Your task to perform on an android device: Show me popular videos on Youtube Image 0: 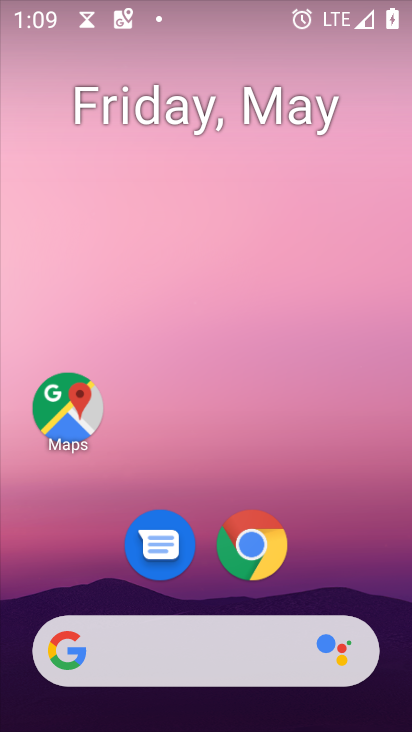
Step 0: drag from (341, 568) to (327, 90)
Your task to perform on an android device: Show me popular videos on Youtube Image 1: 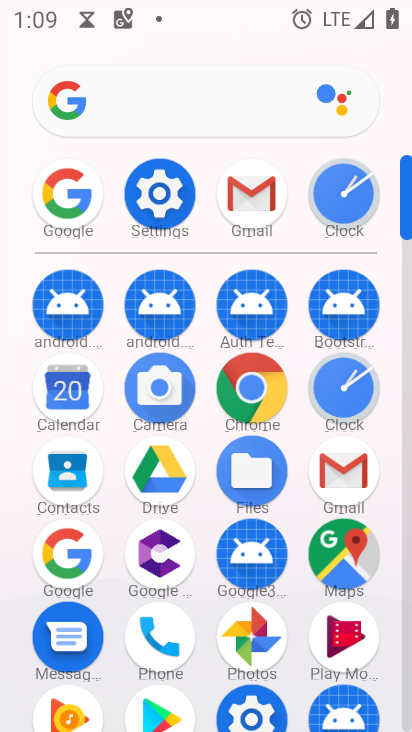
Step 1: drag from (302, 571) to (308, 180)
Your task to perform on an android device: Show me popular videos on Youtube Image 2: 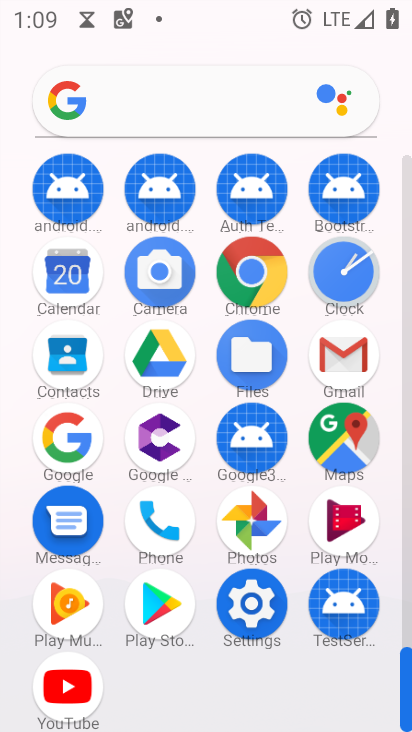
Step 2: click (59, 681)
Your task to perform on an android device: Show me popular videos on Youtube Image 3: 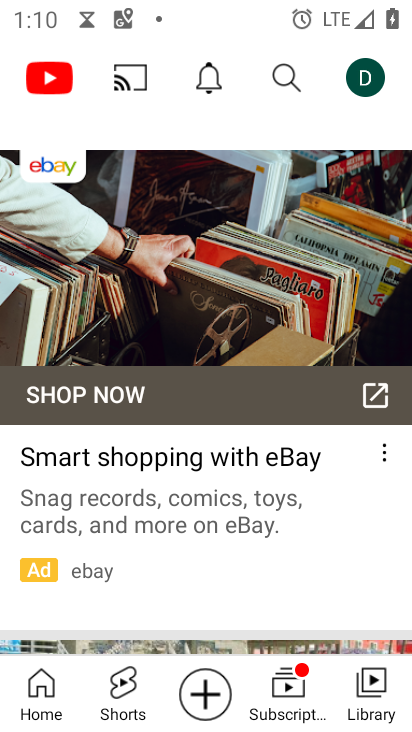
Step 3: click (280, 71)
Your task to perform on an android device: Show me popular videos on Youtube Image 4: 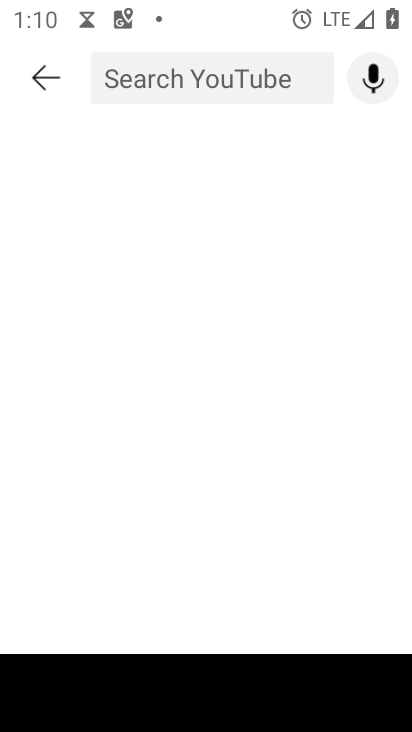
Step 4: type "popular videos on Youtube"
Your task to perform on an android device: Show me popular videos on Youtube Image 5: 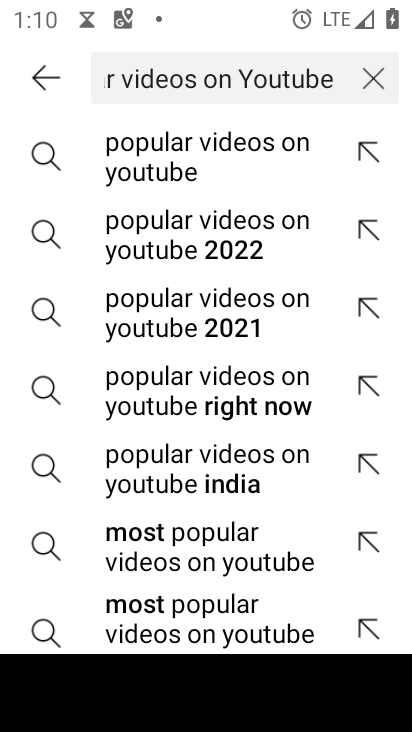
Step 5: click (194, 170)
Your task to perform on an android device: Show me popular videos on Youtube Image 6: 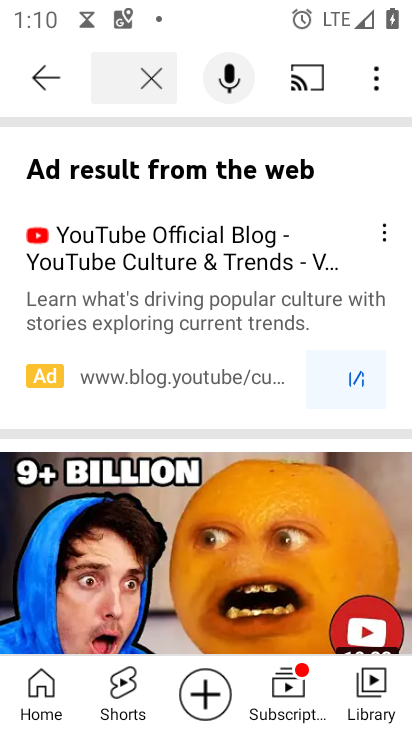
Step 6: task complete